Your task to perform on an android device: change notification settings in the gmail app Image 0: 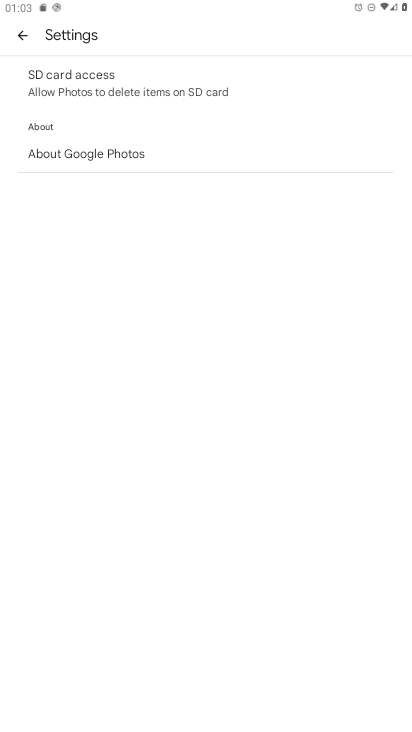
Step 0: press home button
Your task to perform on an android device: change notification settings in the gmail app Image 1: 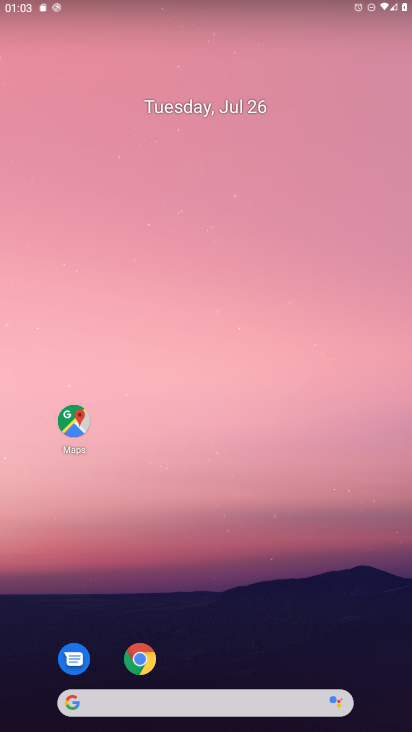
Step 1: drag from (296, 625) to (302, 91)
Your task to perform on an android device: change notification settings in the gmail app Image 2: 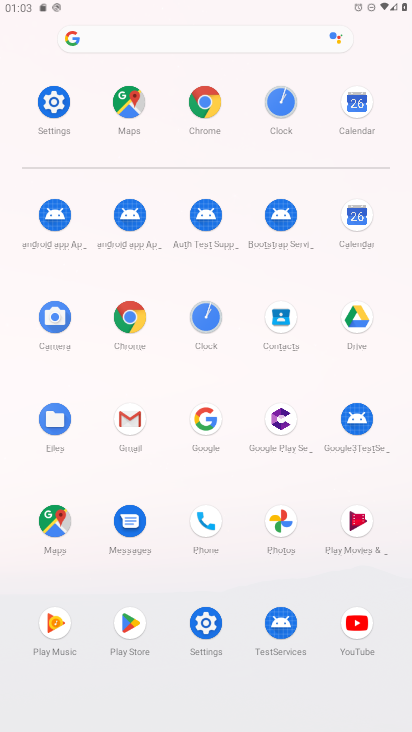
Step 2: click (127, 415)
Your task to perform on an android device: change notification settings in the gmail app Image 3: 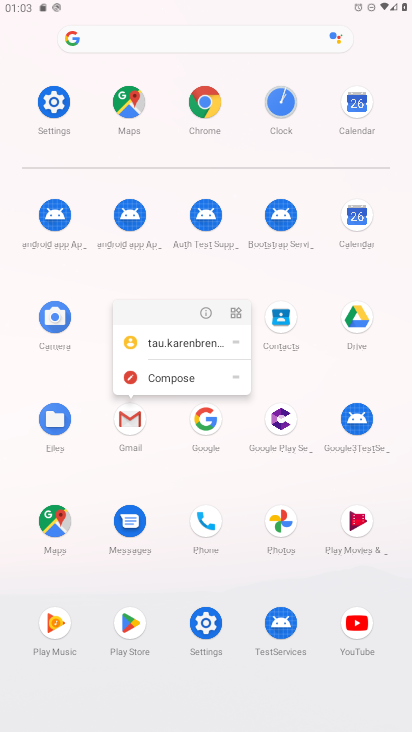
Step 3: click (205, 309)
Your task to perform on an android device: change notification settings in the gmail app Image 4: 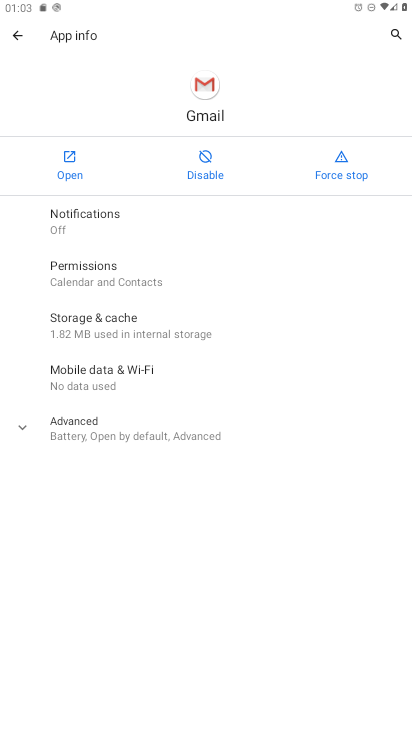
Step 4: click (98, 220)
Your task to perform on an android device: change notification settings in the gmail app Image 5: 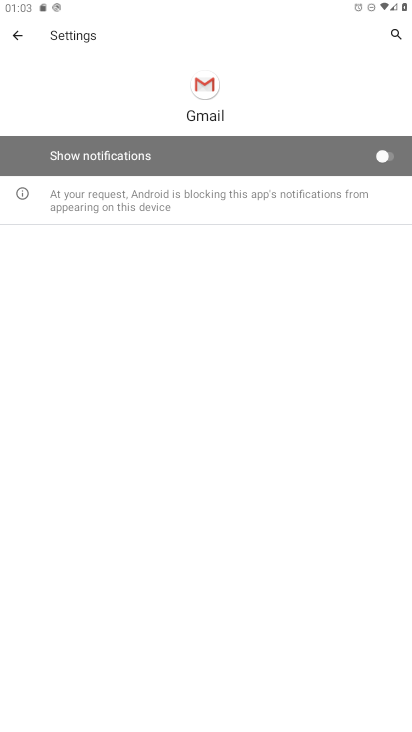
Step 5: click (292, 164)
Your task to perform on an android device: change notification settings in the gmail app Image 6: 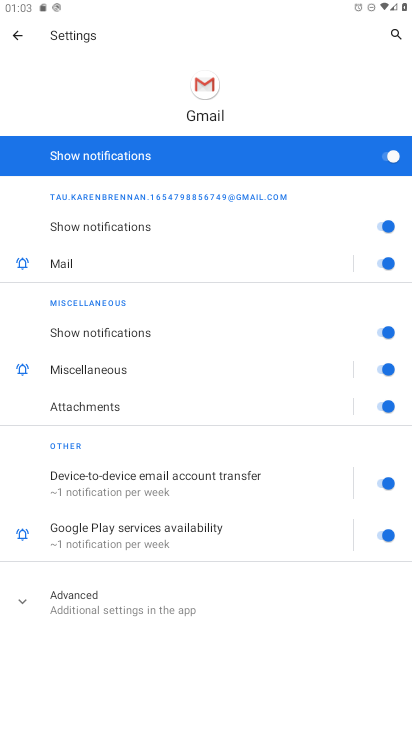
Step 6: task complete